Your task to perform on an android device: turn pop-ups on in chrome Image 0: 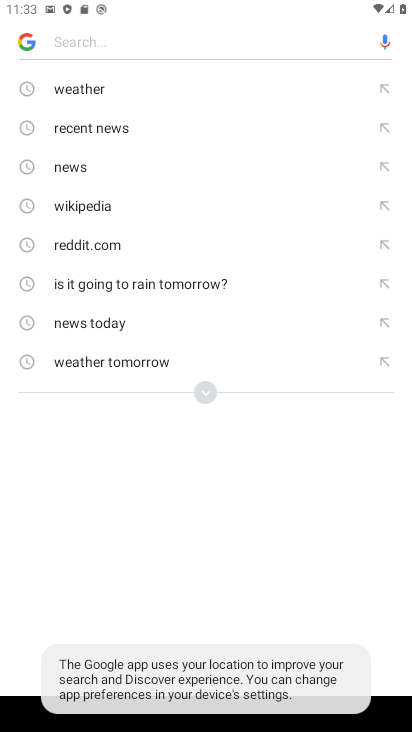
Step 0: press home button
Your task to perform on an android device: turn pop-ups on in chrome Image 1: 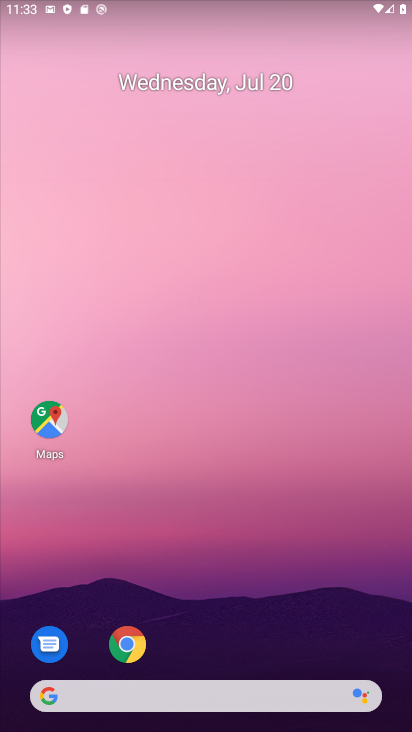
Step 1: click (124, 645)
Your task to perform on an android device: turn pop-ups on in chrome Image 2: 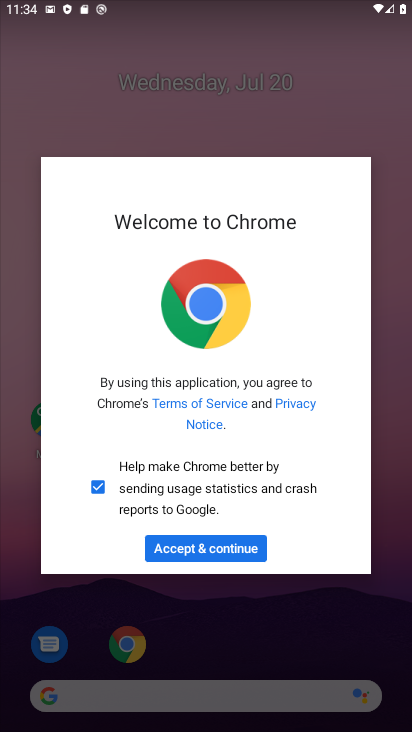
Step 2: click (207, 550)
Your task to perform on an android device: turn pop-ups on in chrome Image 3: 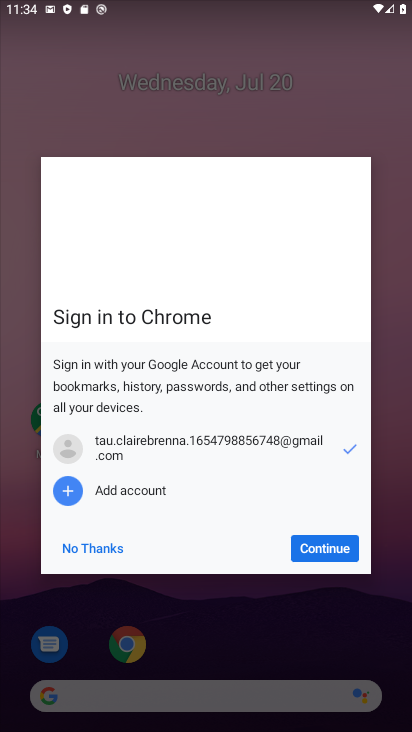
Step 3: click (325, 546)
Your task to perform on an android device: turn pop-ups on in chrome Image 4: 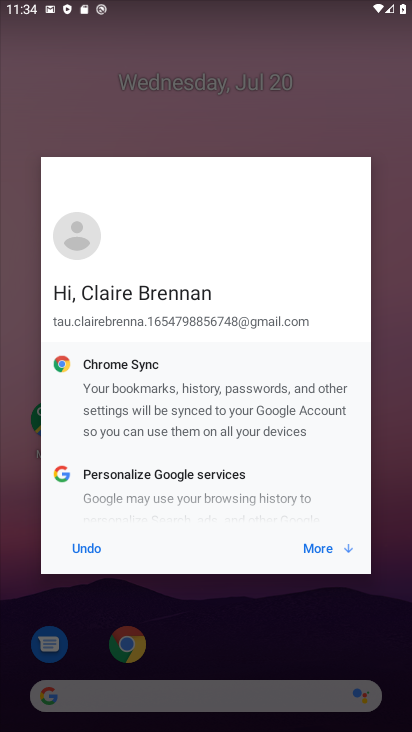
Step 4: click (313, 547)
Your task to perform on an android device: turn pop-ups on in chrome Image 5: 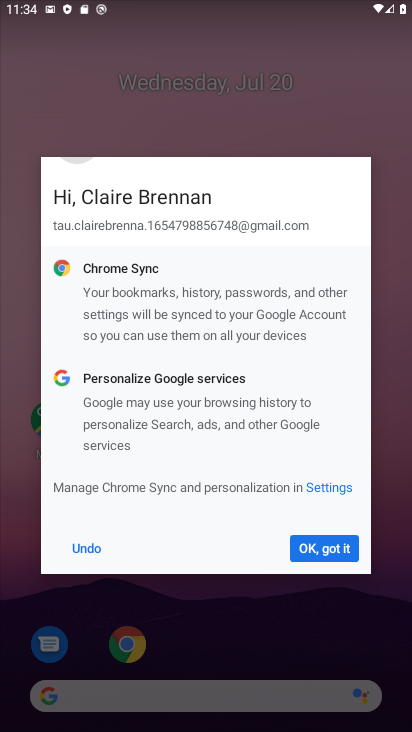
Step 5: click (335, 559)
Your task to perform on an android device: turn pop-ups on in chrome Image 6: 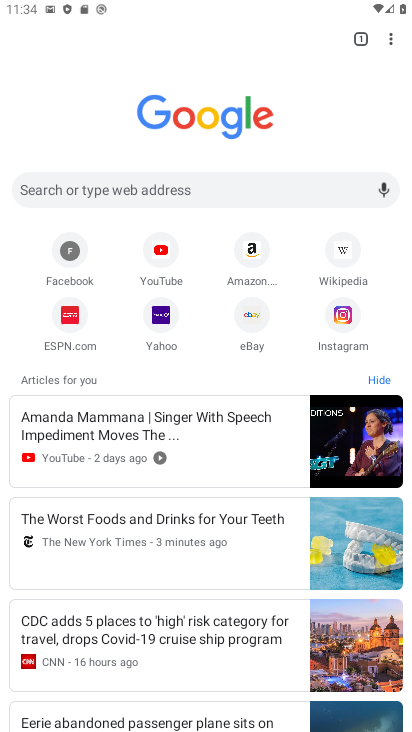
Step 6: click (390, 40)
Your task to perform on an android device: turn pop-ups on in chrome Image 7: 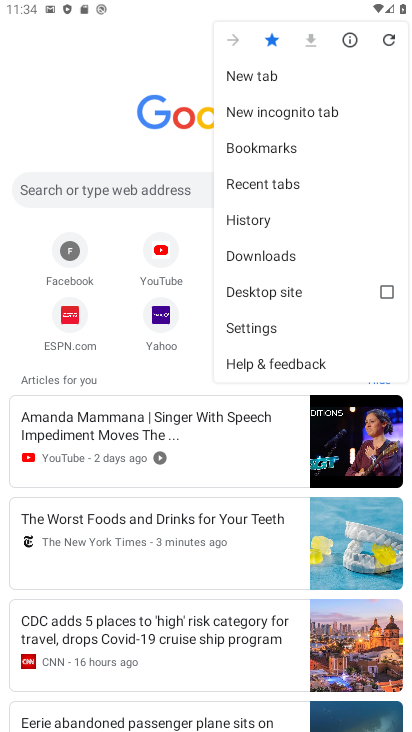
Step 7: click (255, 325)
Your task to perform on an android device: turn pop-ups on in chrome Image 8: 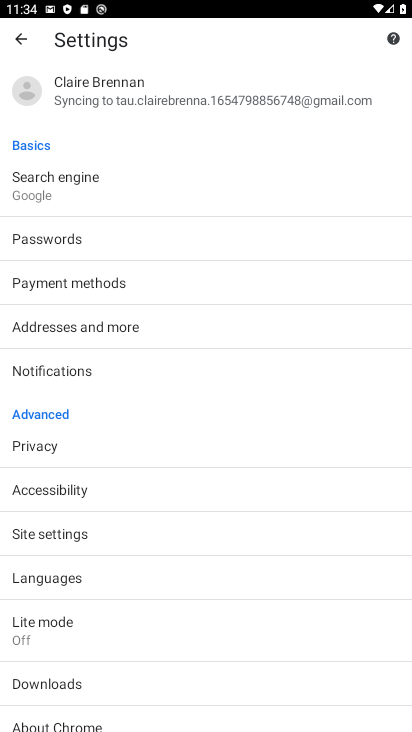
Step 8: click (43, 534)
Your task to perform on an android device: turn pop-ups on in chrome Image 9: 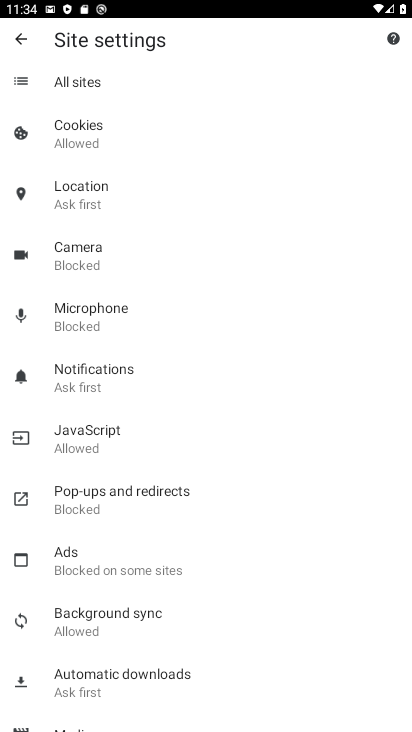
Step 9: click (93, 505)
Your task to perform on an android device: turn pop-ups on in chrome Image 10: 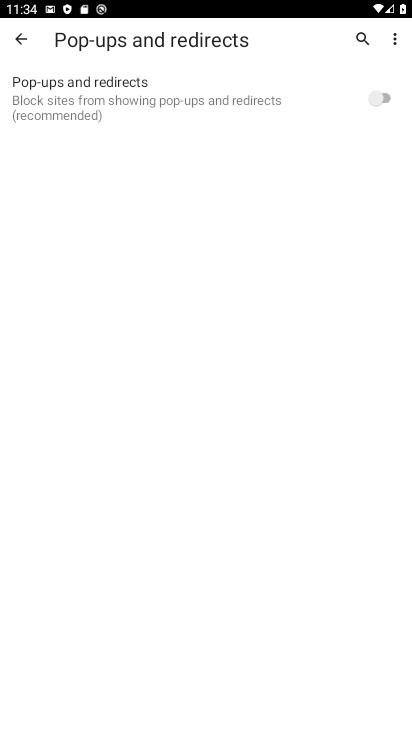
Step 10: click (388, 97)
Your task to perform on an android device: turn pop-ups on in chrome Image 11: 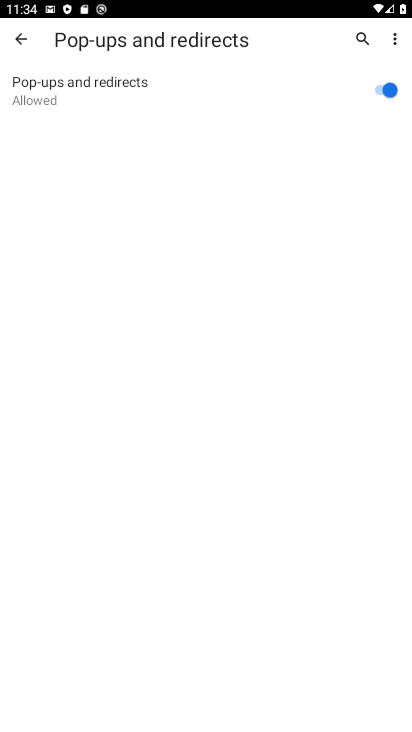
Step 11: task complete